Your task to perform on an android device: Search for the new steph curry shoes on Amazon. Image 0: 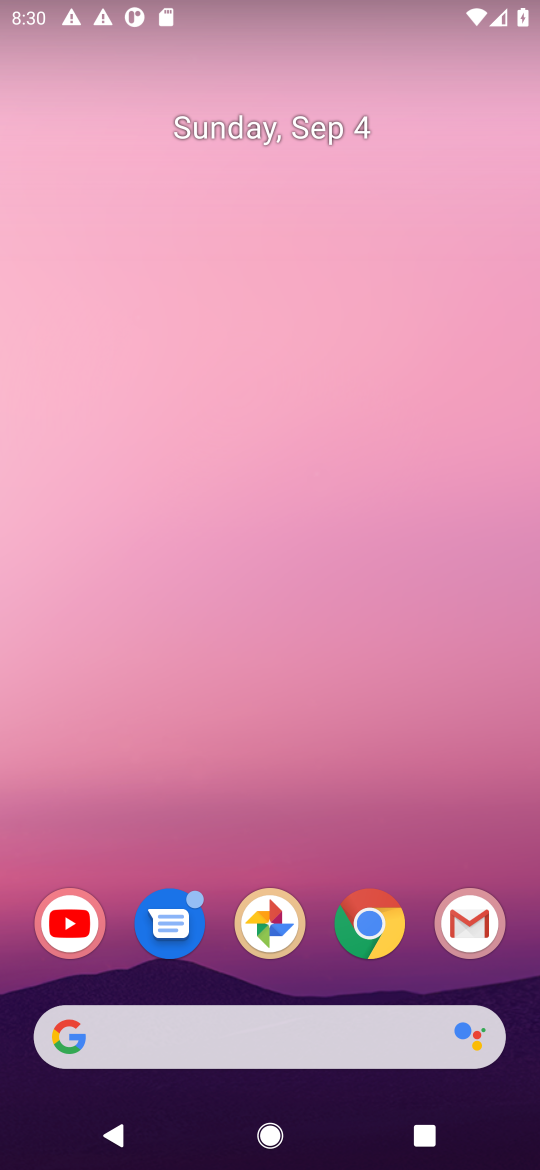
Step 0: click (355, 942)
Your task to perform on an android device: Search for the new steph curry shoes on Amazon. Image 1: 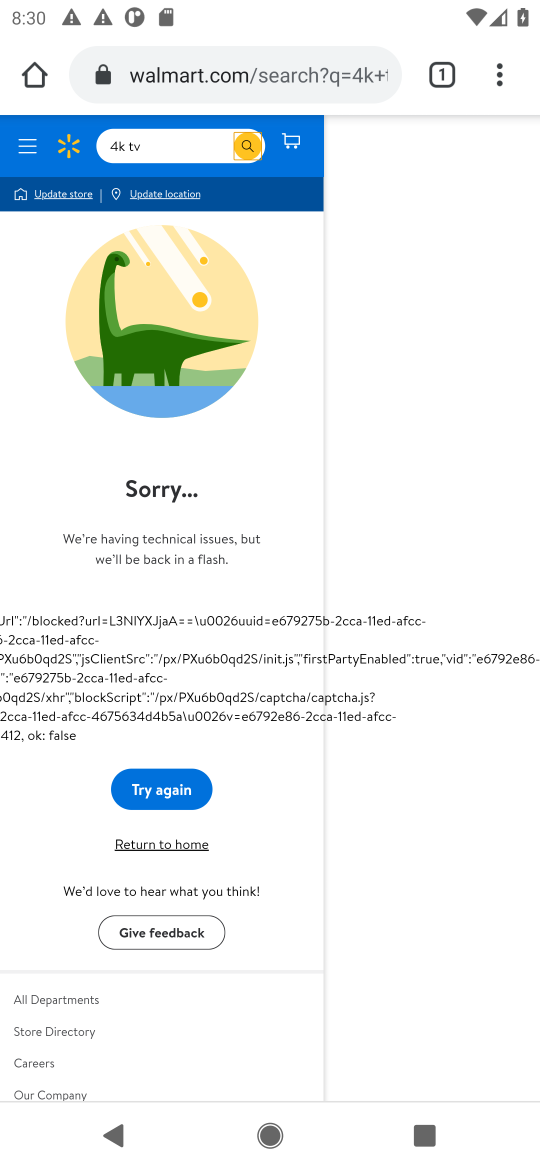
Step 1: click (323, 81)
Your task to perform on an android device: Search for the new steph curry shoes on Amazon. Image 2: 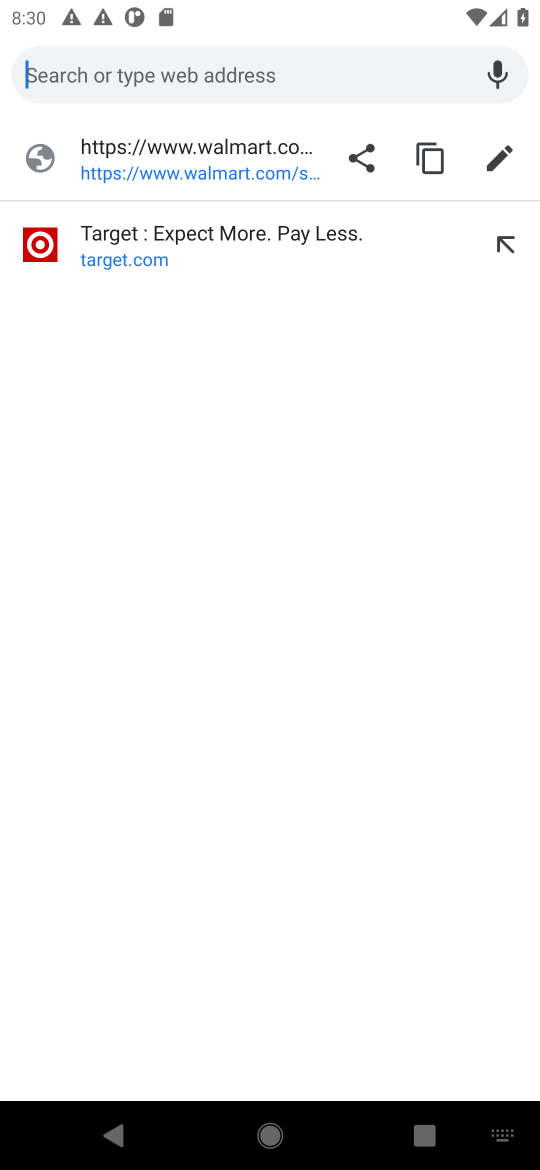
Step 2: type "amazon"
Your task to perform on an android device: Search for the new steph curry shoes on Amazon. Image 3: 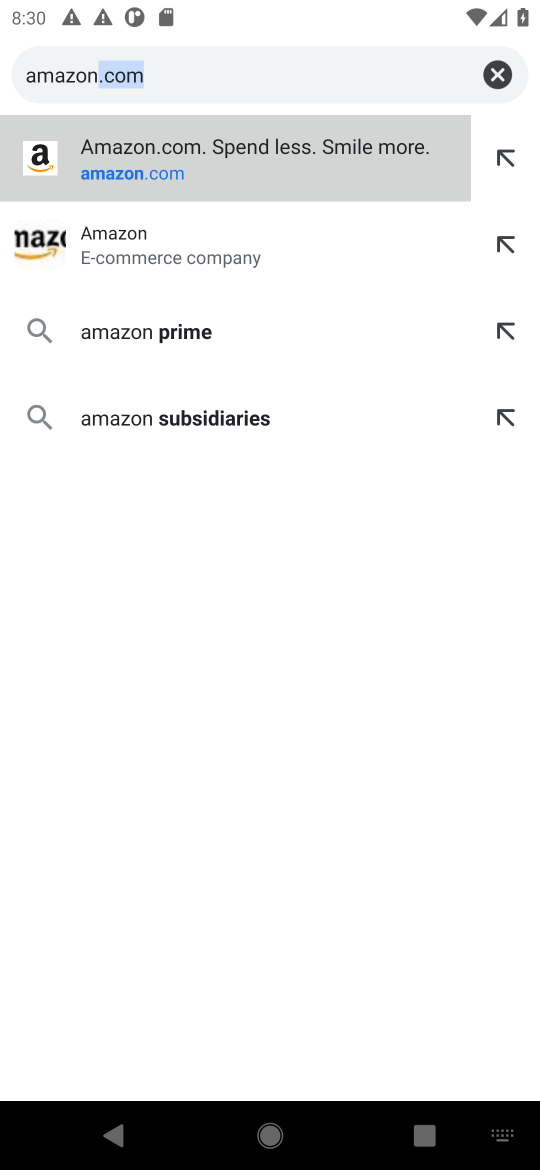
Step 3: click (111, 135)
Your task to perform on an android device: Search for the new steph curry shoes on Amazon. Image 4: 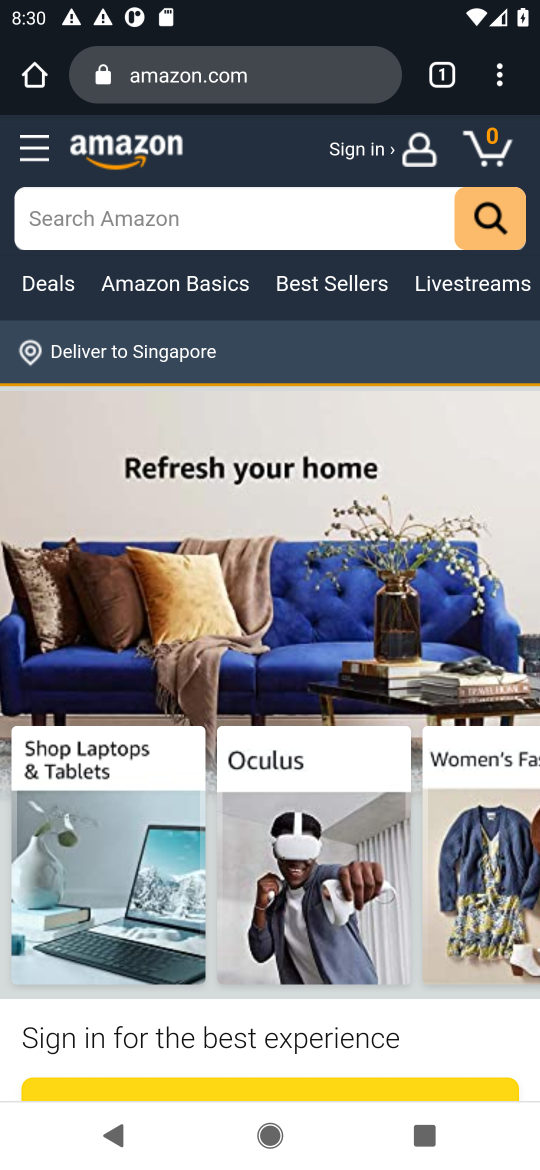
Step 4: click (163, 228)
Your task to perform on an android device: Search for the new steph curry shoes on Amazon. Image 5: 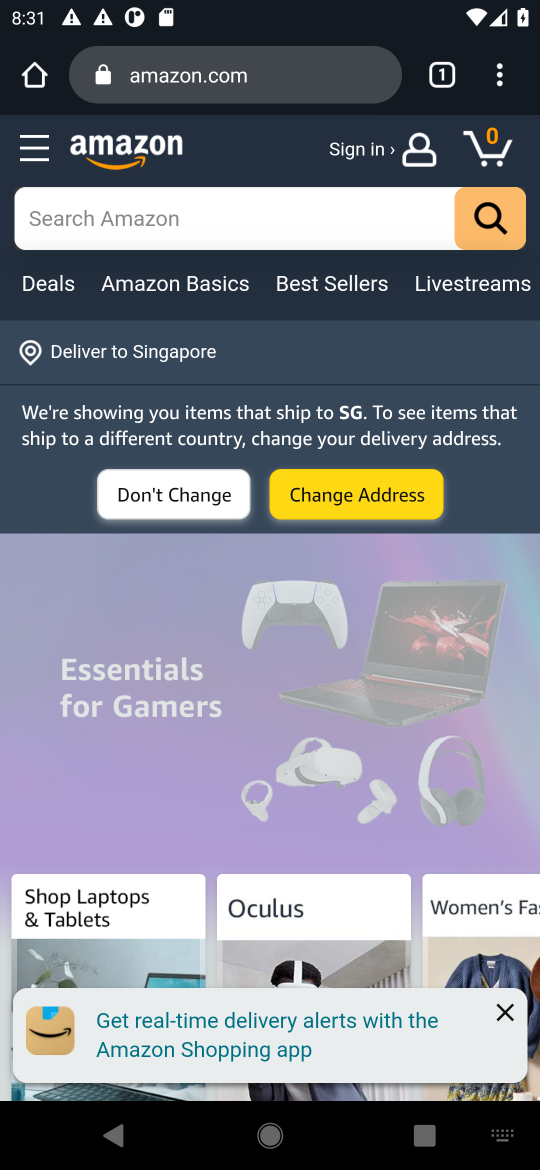
Step 5: type "new steph curry shoes"
Your task to perform on an android device: Search for the new steph curry shoes on Amazon. Image 6: 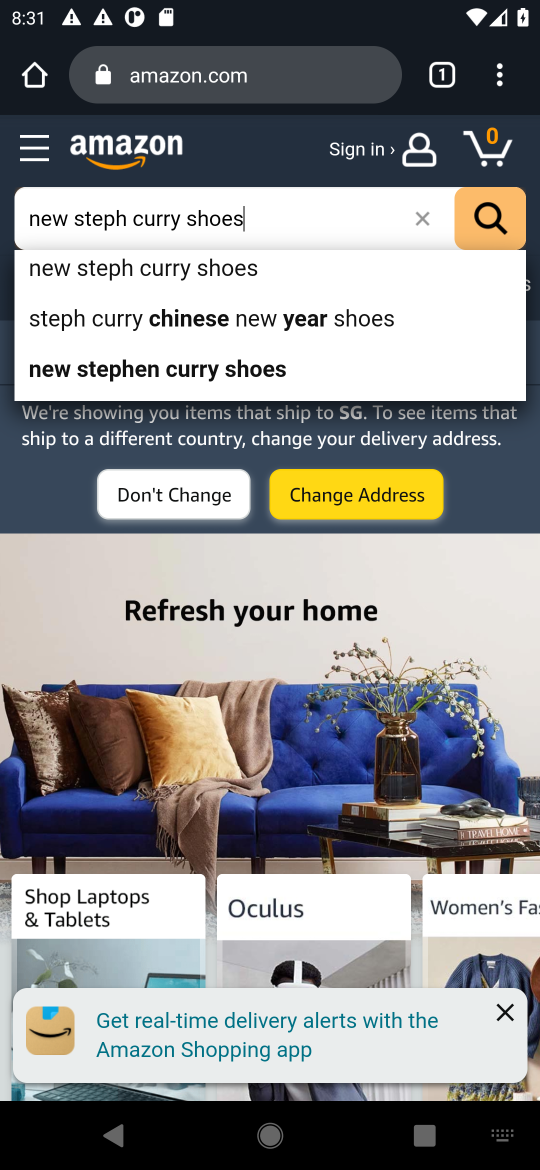
Step 6: click (244, 261)
Your task to perform on an android device: Search for the new steph curry shoes on Amazon. Image 7: 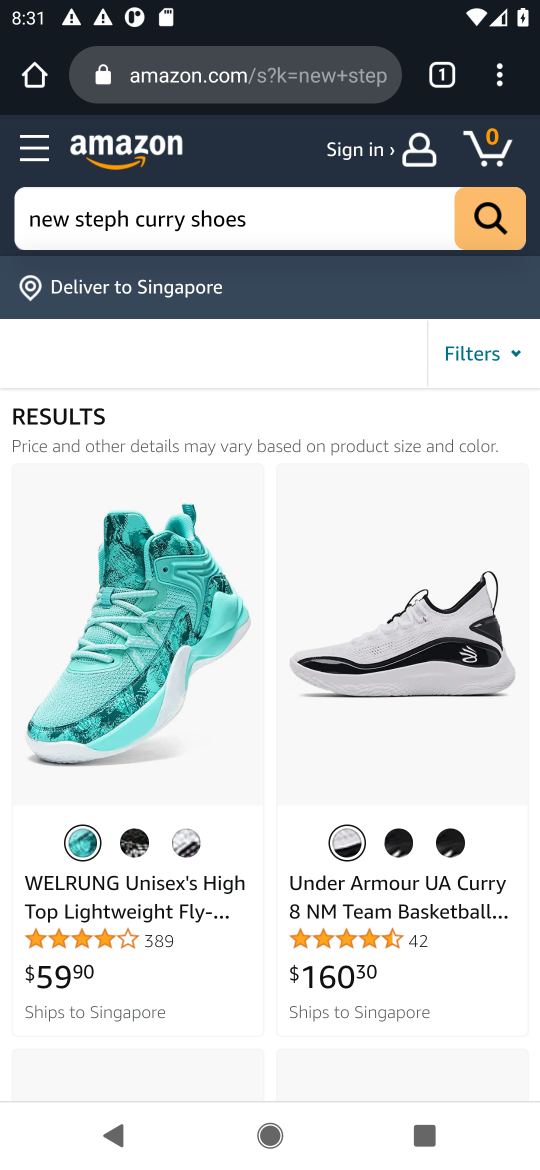
Step 7: task complete